Your task to perform on an android device: What is the recent news? Image 0: 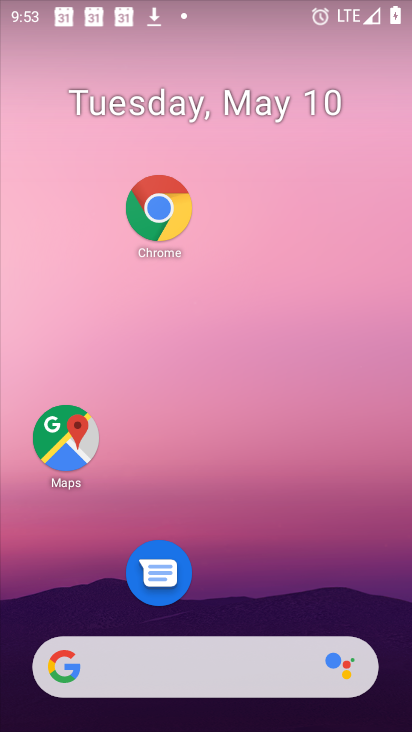
Step 0: drag from (242, 702) to (370, 226)
Your task to perform on an android device: What is the recent news? Image 1: 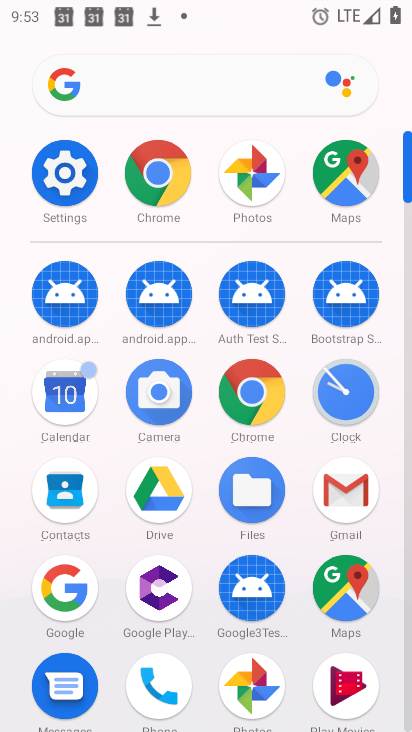
Step 1: click (161, 84)
Your task to perform on an android device: What is the recent news? Image 2: 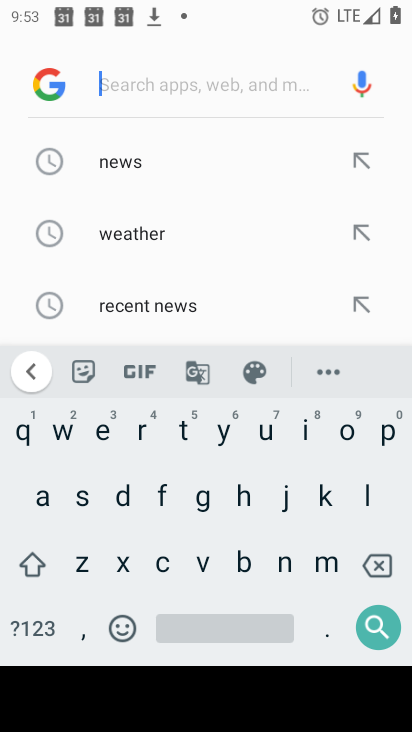
Step 2: click (156, 311)
Your task to perform on an android device: What is the recent news? Image 3: 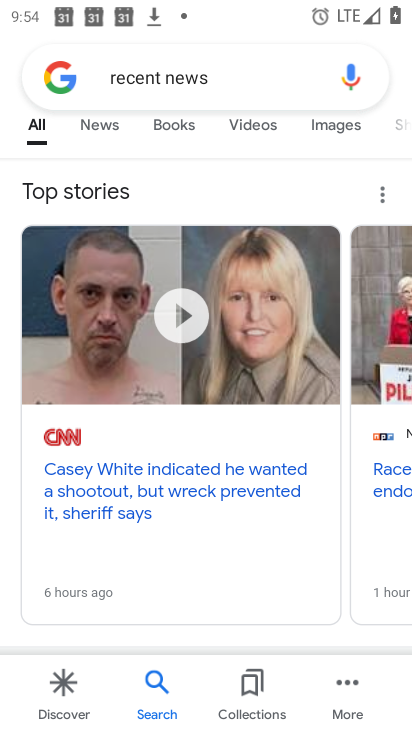
Step 3: task complete